Your task to perform on an android device: open app "Google Photos" Image 0: 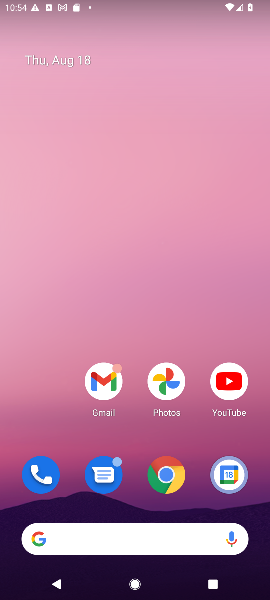
Step 0: drag from (136, 509) to (105, 7)
Your task to perform on an android device: open app "Google Photos" Image 1: 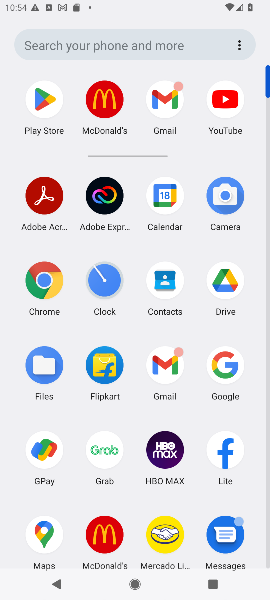
Step 1: drag from (136, 486) to (140, 91)
Your task to perform on an android device: open app "Google Photos" Image 2: 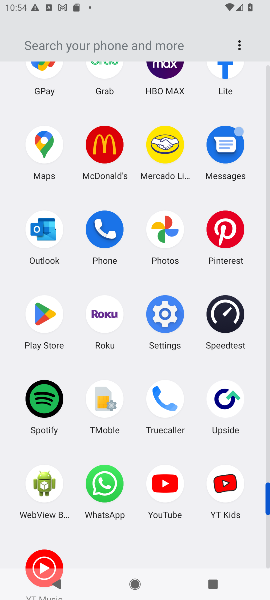
Step 2: click (41, 312)
Your task to perform on an android device: open app "Google Photos" Image 3: 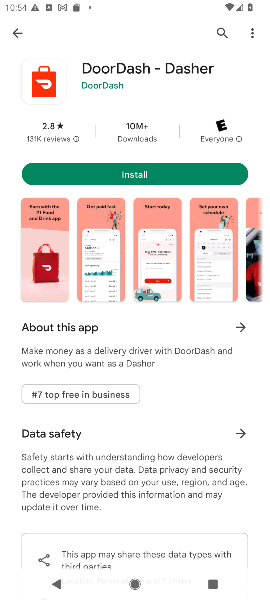
Step 3: click (15, 32)
Your task to perform on an android device: open app "Google Photos" Image 4: 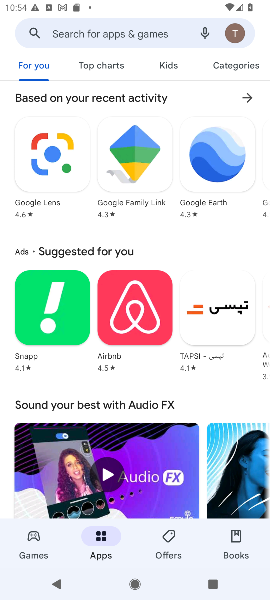
Step 4: click (63, 36)
Your task to perform on an android device: open app "Google Photos" Image 5: 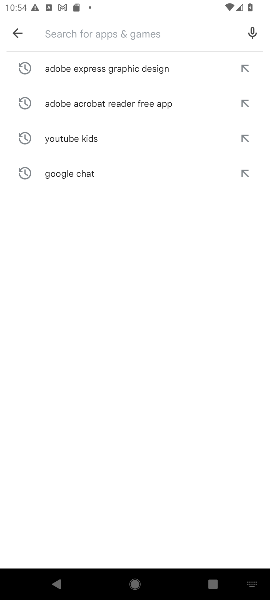
Step 5: type "Google Photos"
Your task to perform on an android device: open app "Google Photos" Image 6: 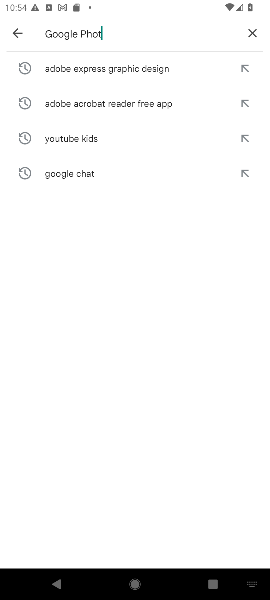
Step 6: type ""
Your task to perform on an android device: open app "Google Photos" Image 7: 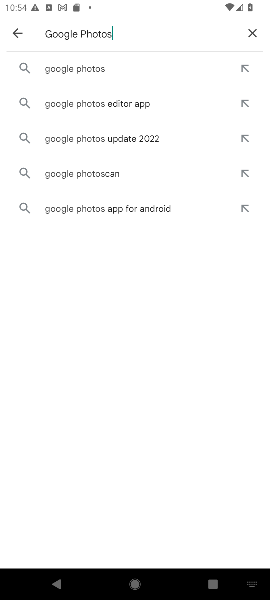
Step 7: click (86, 86)
Your task to perform on an android device: open app "Google Photos" Image 8: 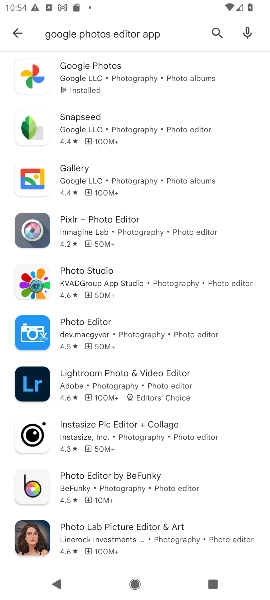
Step 8: click (83, 83)
Your task to perform on an android device: open app "Google Photos" Image 9: 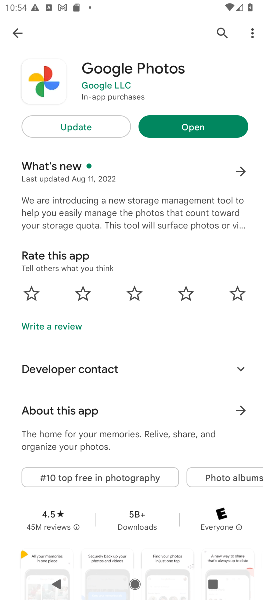
Step 9: click (180, 118)
Your task to perform on an android device: open app "Google Photos" Image 10: 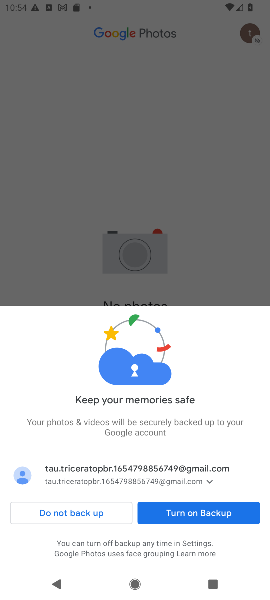
Step 10: click (188, 513)
Your task to perform on an android device: open app "Google Photos" Image 11: 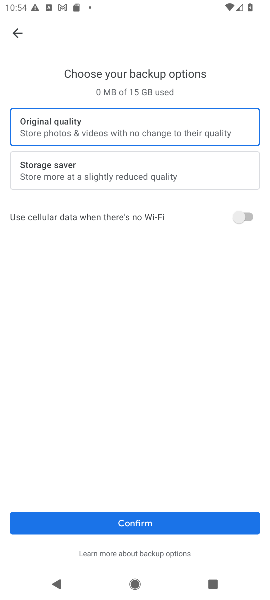
Step 11: click (176, 534)
Your task to perform on an android device: open app "Google Photos" Image 12: 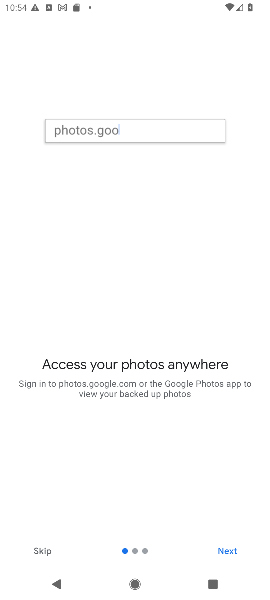
Step 12: task complete